Your task to perform on an android device: move a message to another label in the gmail app Image 0: 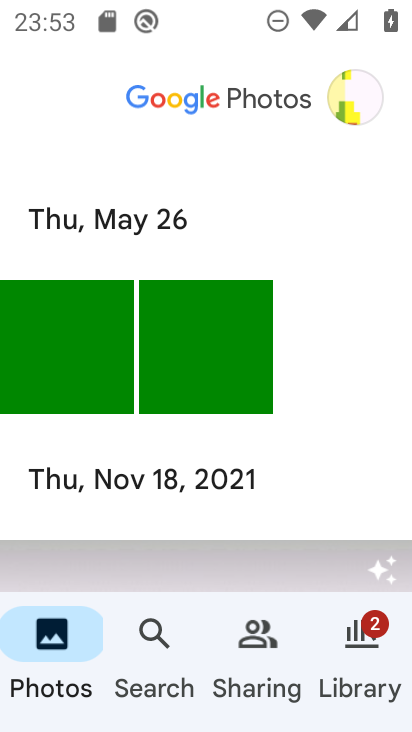
Step 0: press home button
Your task to perform on an android device: move a message to another label in the gmail app Image 1: 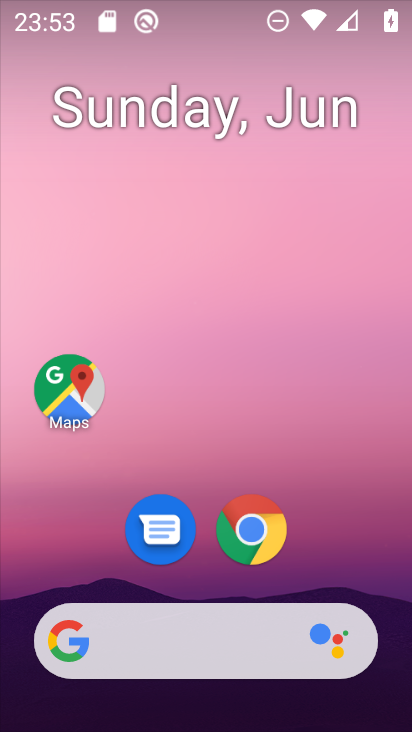
Step 1: drag from (393, 627) to (284, 80)
Your task to perform on an android device: move a message to another label in the gmail app Image 2: 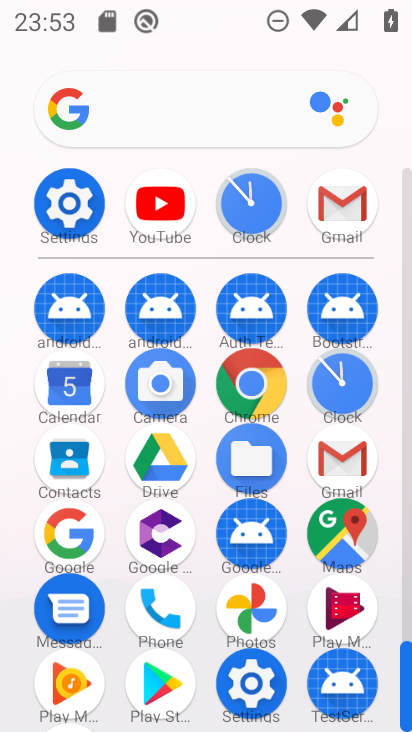
Step 2: click (342, 461)
Your task to perform on an android device: move a message to another label in the gmail app Image 3: 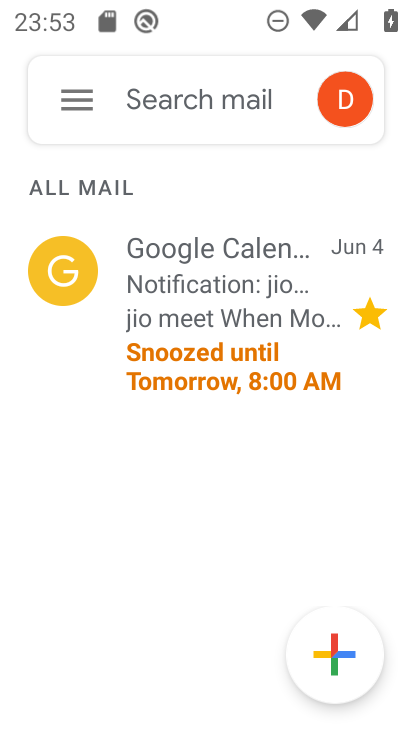
Step 3: click (226, 295)
Your task to perform on an android device: move a message to another label in the gmail app Image 4: 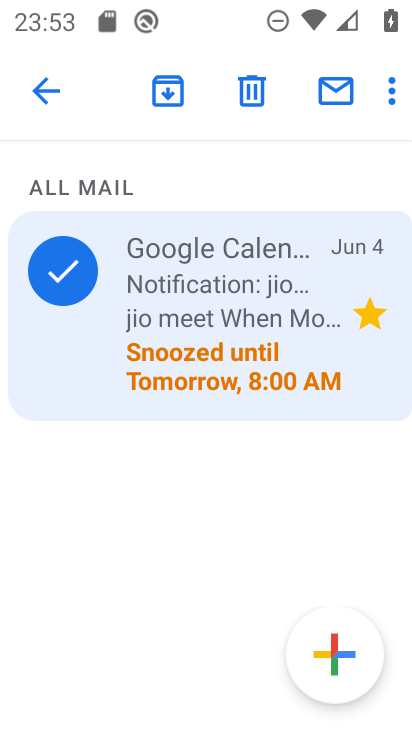
Step 4: click (392, 96)
Your task to perform on an android device: move a message to another label in the gmail app Image 5: 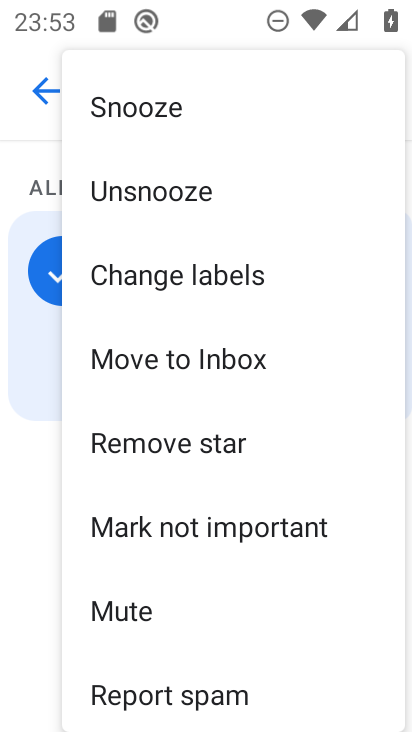
Step 5: click (175, 364)
Your task to perform on an android device: move a message to another label in the gmail app Image 6: 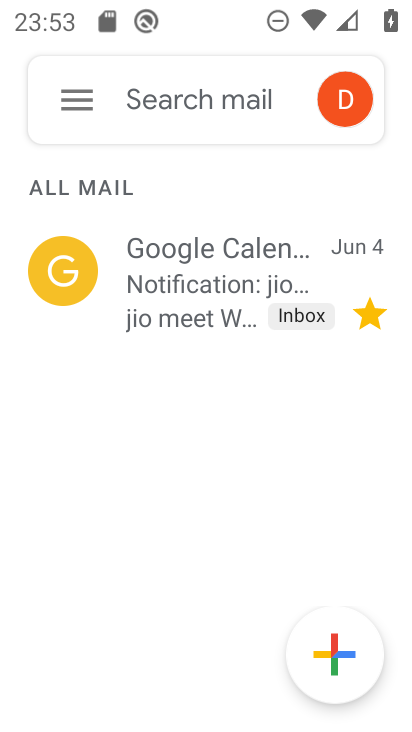
Step 6: task complete